Your task to perform on an android device: Open calendar and show me the second week of next month Image 0: 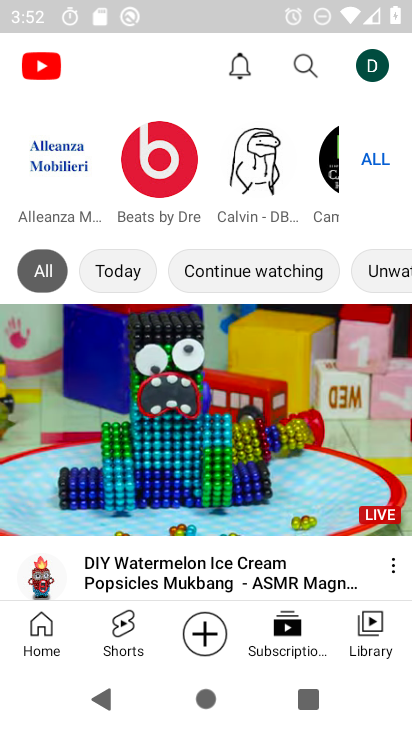
Step 0: press home button
Your task to perform on an android device: Open calendar and show me the second week of next month Image 1: 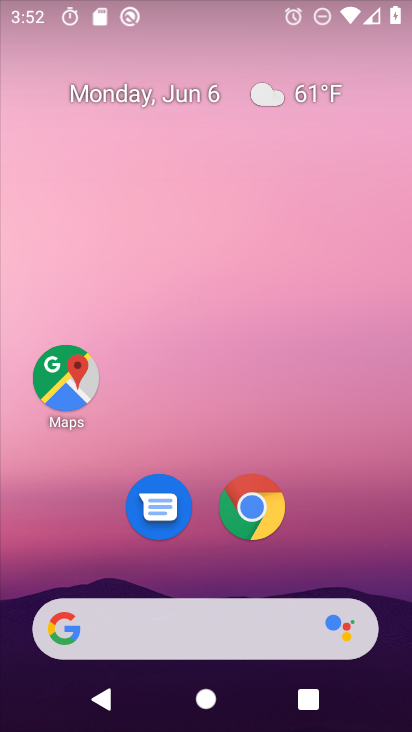
Step 1: drag from (199, 566) to (231, 175)
Your task to perform on an android device: Open calendar and show me the second week of next month Image 2: 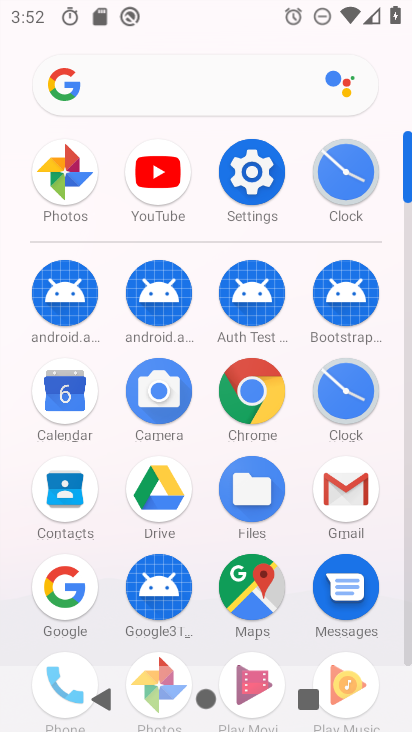
Step 2: click (74, 407)
Your task to perform on an android device: Open calendar and show me the second week of next month Image 3: 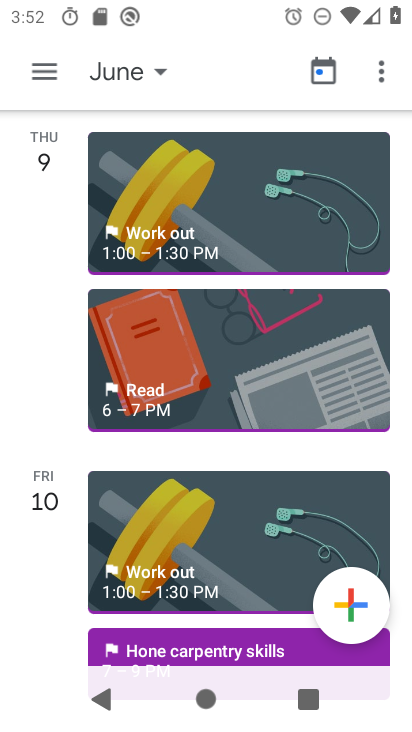
Step 3: click (154, 77)
Your task to perform on an android device: Open calendar and show me the second week of next month Image 4: 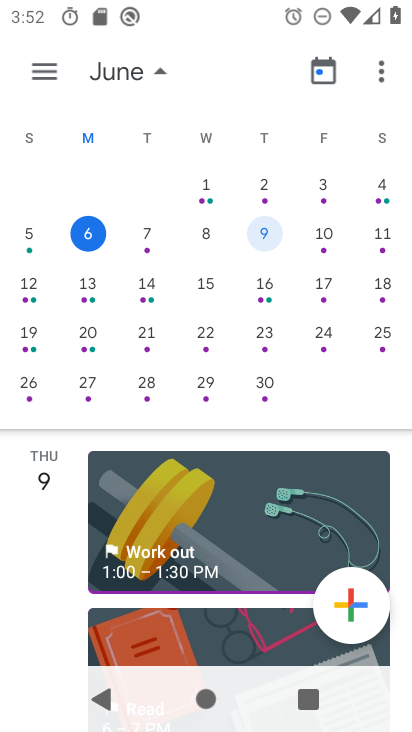
Step 4: drag from (329, 265) to (28, 263)
Your task to perform on an android device: Open calendar and show me the second week of next month Image 5: 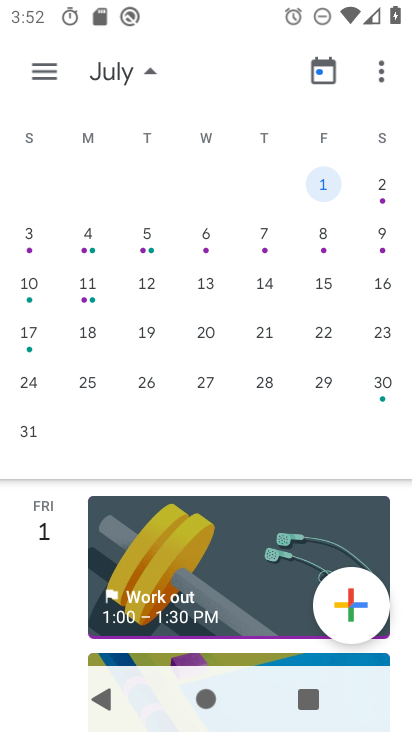
Step 5: click (39, 227)
Your task to perform on an android device: Open calendar and show me the second week of next month Image 6: 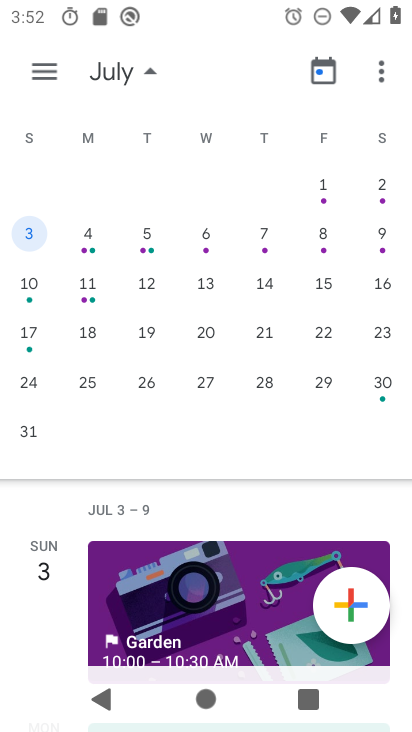
Step 6: task complete